Your task to perform on an android device: toggle location history Image 0: 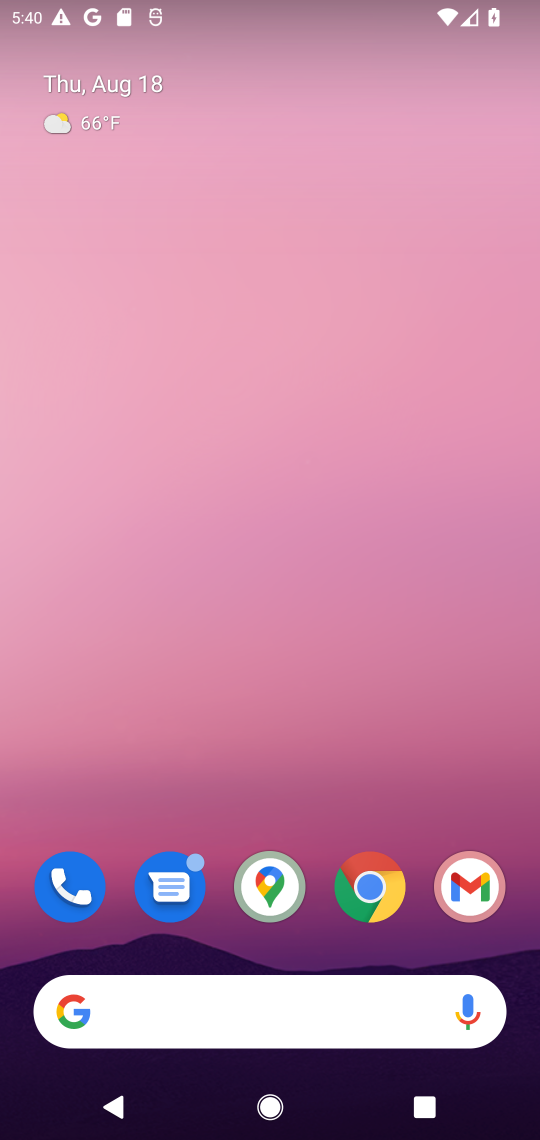
Step 0: drag from (295, 680) to (330, 334)
Your task to perform on an android device: toggle location history Image 1: 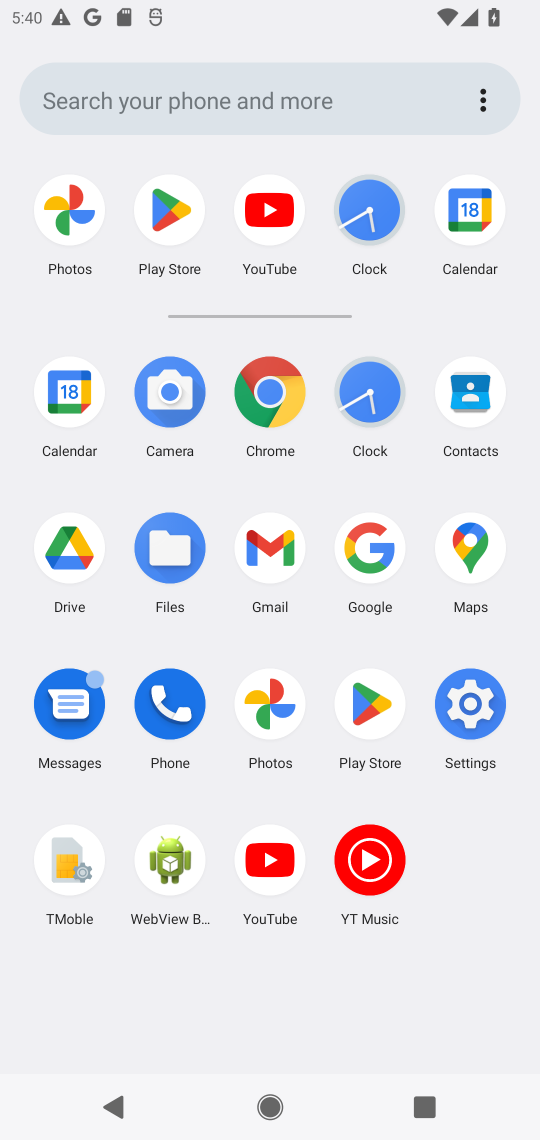
Step 1: task complete